Your task to perform on an android device: all mails in gmail Image 0: 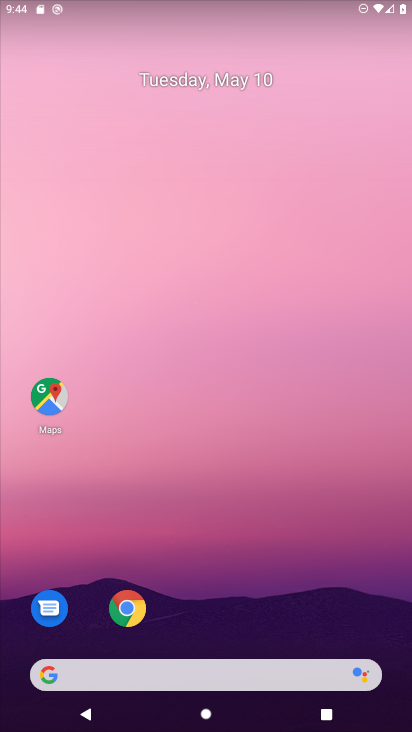
Step 0: drag from (341, 634) to (303, 58)
Your task to perform on an android device: all mails in gmail Image 1: 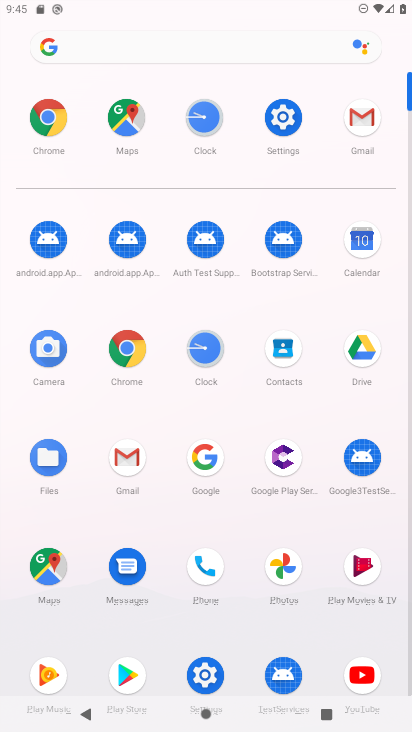
Step 1: click (353, 130)
Your task to perform on an android device: all mails in gmail Image 2: 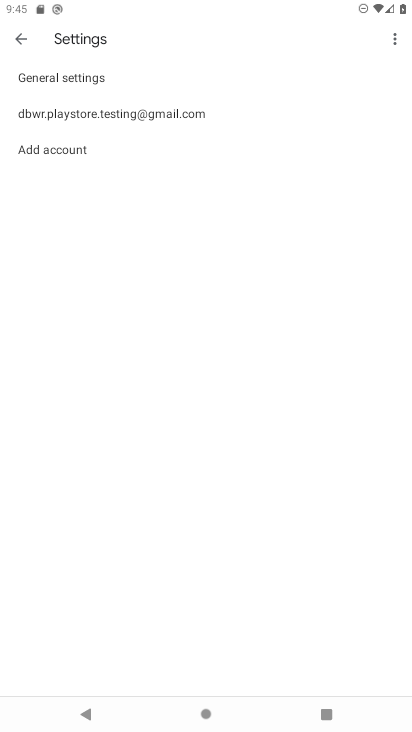
Step 2: press back button
Your task to perform on an android device: all mails in gmail Image 3: 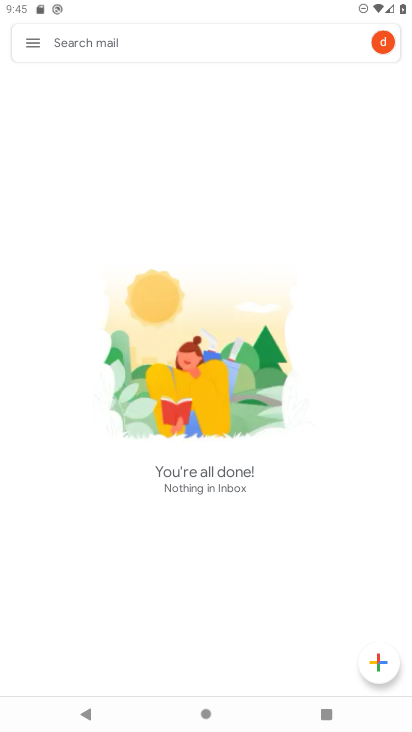
Step 3: click (17, 50)
Your task to perform on an android device: all mails in gmail Image 4: 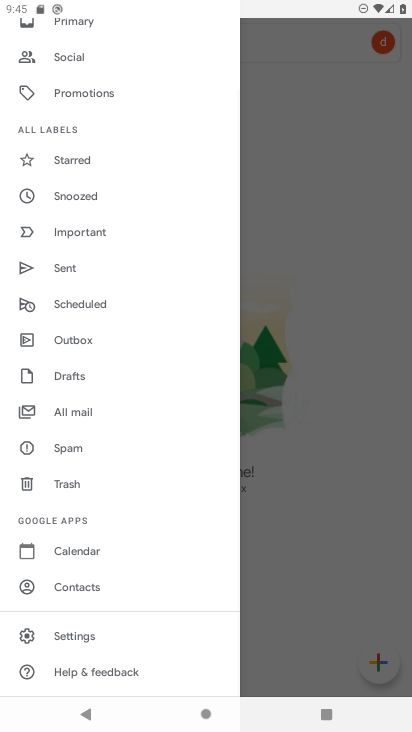
Step 4: click (104, 413)
Your task to perform on an android device: all mails in gmail Image 5: 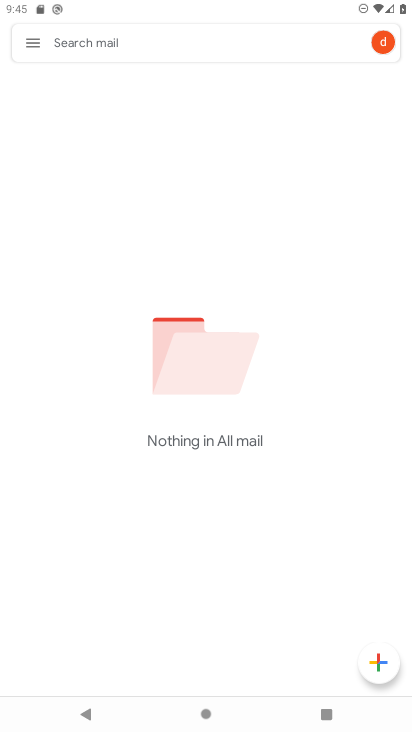
Step 5: task complete